Your task to perform on an android device: turn on wifi Image 0: 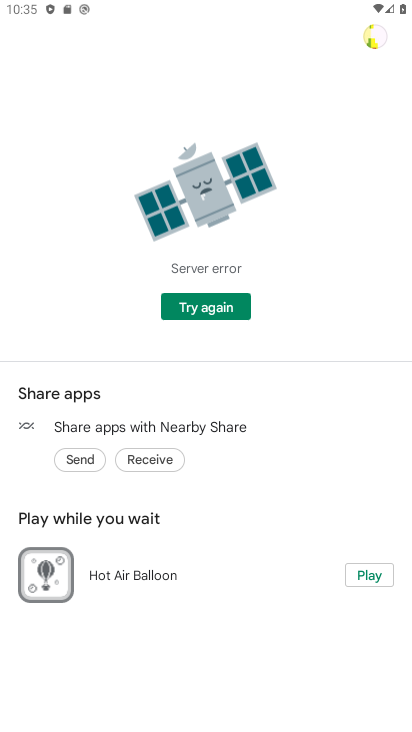
Step 0: press home button
Your task to perform on an android device: turn on wifi Image 1: 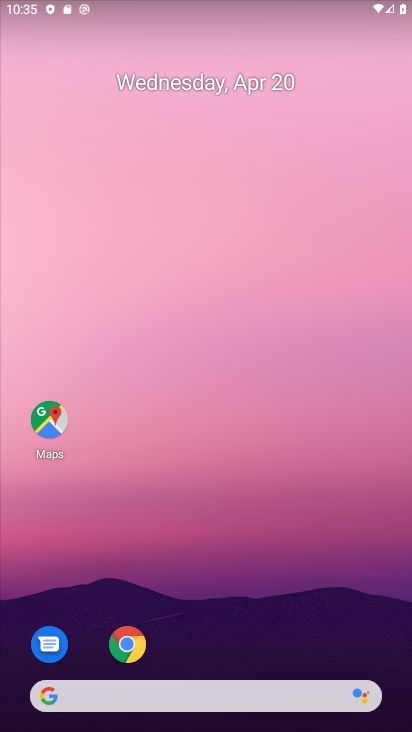
Step 1: drag from (380, 623) to (407, 54)
Your task to perform on an android device: turn on wifi Image 2: 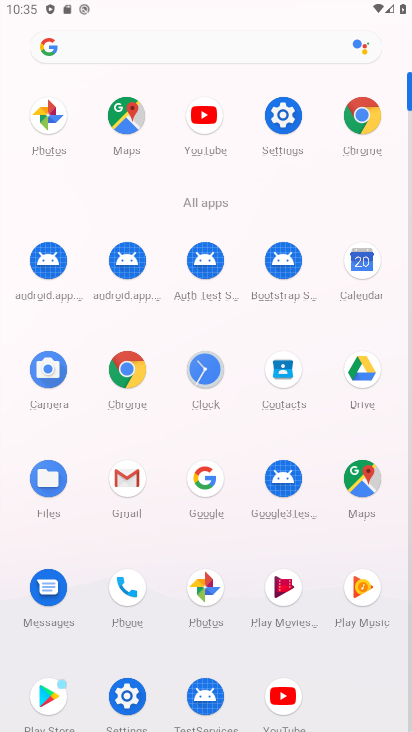
Step 2: click (140, 691)
Your task to perform on an android device: turn on wifi Image 3: 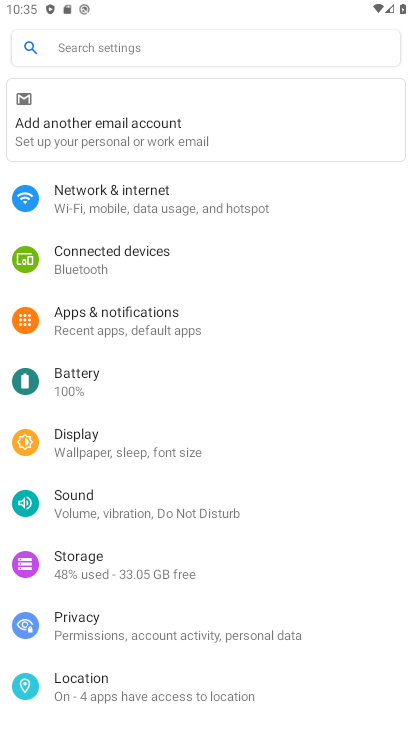
Step 3: click (134, 205)
Your task to perform on an android device: turn on wifi Image 4: 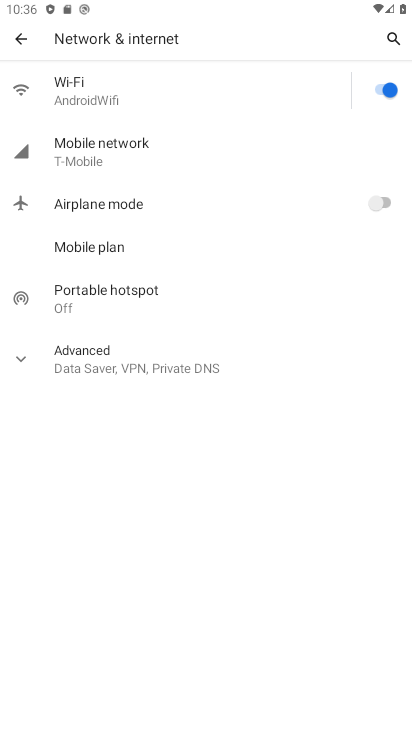
Step 4: click (162, 84)
Your task to perform on an android device: turn on wifi Image 5: 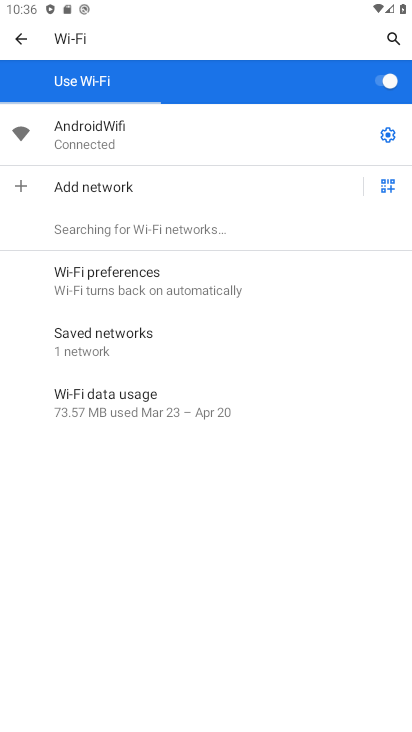
Step 5: task complete